Your task to perform on an android device: Open the calendar app, open the side menu, and click the "Day" option Image 0: 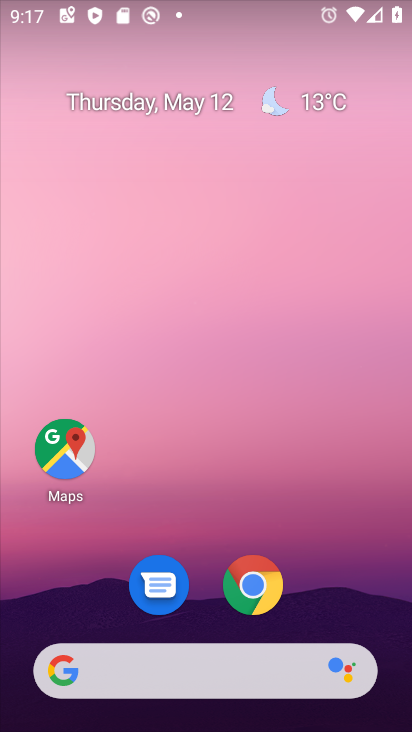
Step 0: drag from (233, 461) to (161, 28)
Your task to perform on an android device: Open the calendar app, open the side menu, and click the "Day" option Image 1: 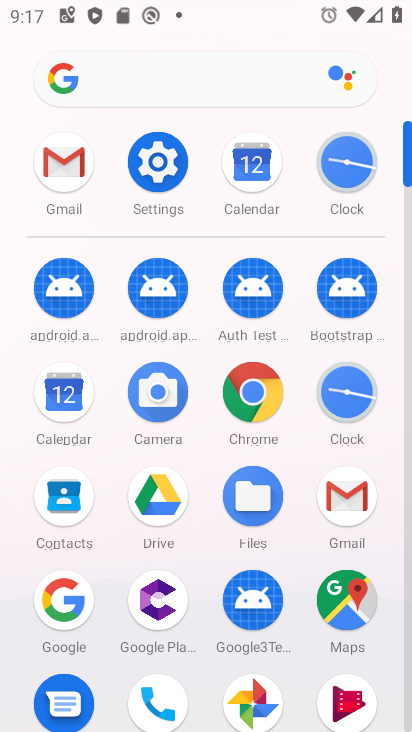
Step 1: click (248, 165)
Your task to perform on an android device: Open the calendar app, open the side menu, and click the "Day" option Image 2: 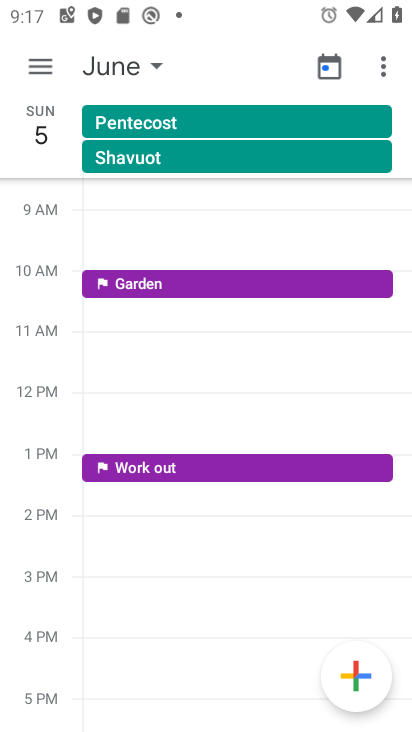
Step 2: click (42, 63)
Your task to perform on an android device: Open the calendar app, open the side menu, and click the "Day" option Image 3: 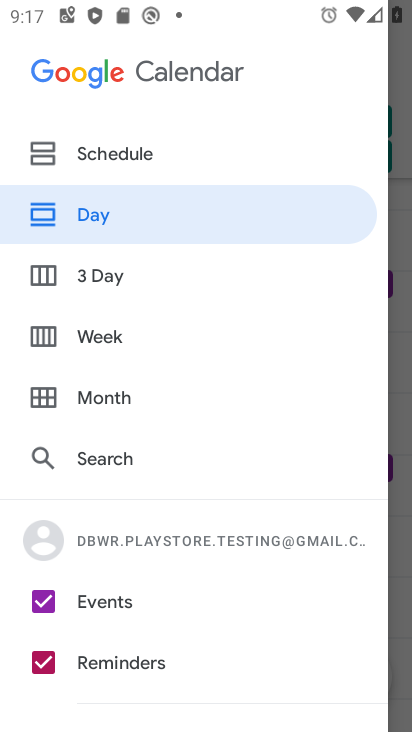
Step 3: click (71, 209)
Your task to perform on an android device: Open the calendar app, open the side menu, and click the "Day" option Image 4: 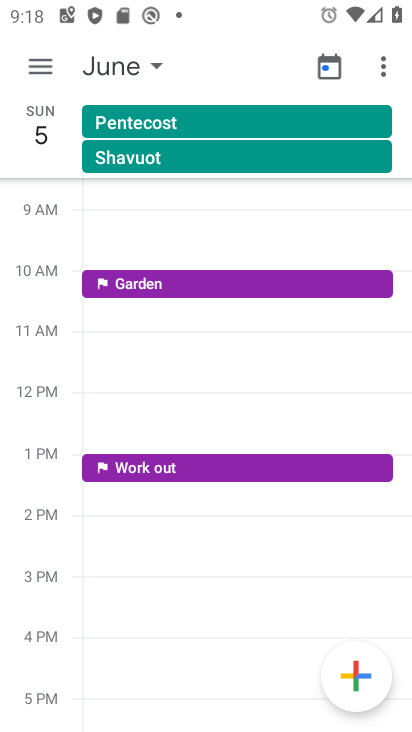
Step 4: task complete